Your task to perform on an android device: What is the recent news? Image 0: 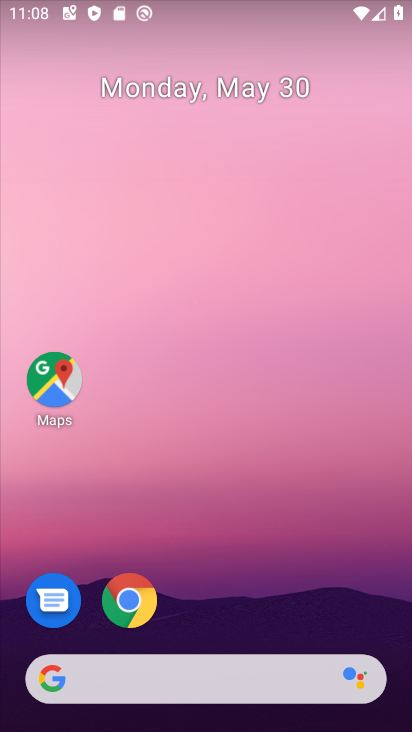
Step 0: drag from (4, 277) to (242, 235)
Your task to perform on an android device: What is the recent news? Image 1: 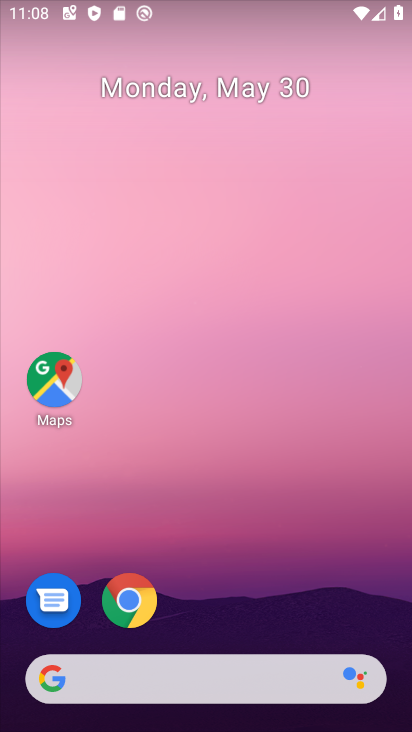
Step 1: task complete